Your task to perform on an android device: Open Android settings Image 0: 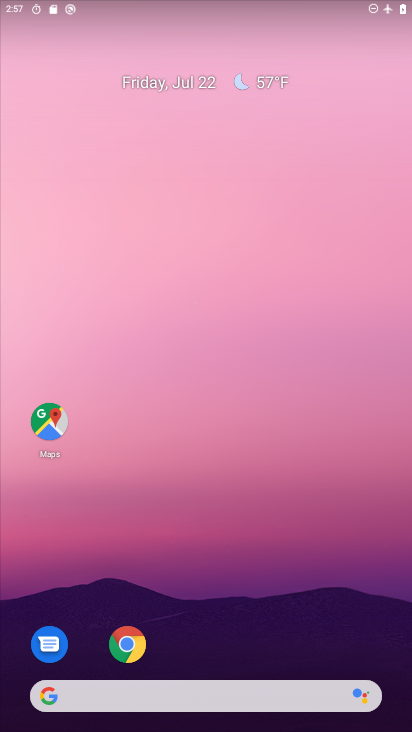
Step 0: drag from (235, 614) to (236, 404)
Your task to perform on an android device: Open Android settings Image 1: 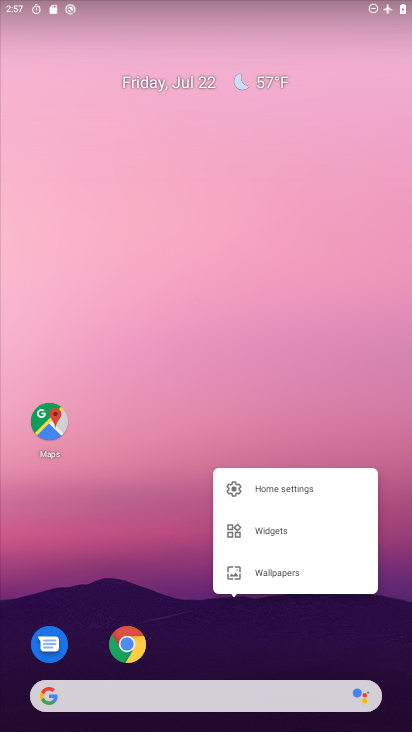
Step 1: click (221, 221)
Your task to perform on an android device: Open Android settings Image 2: 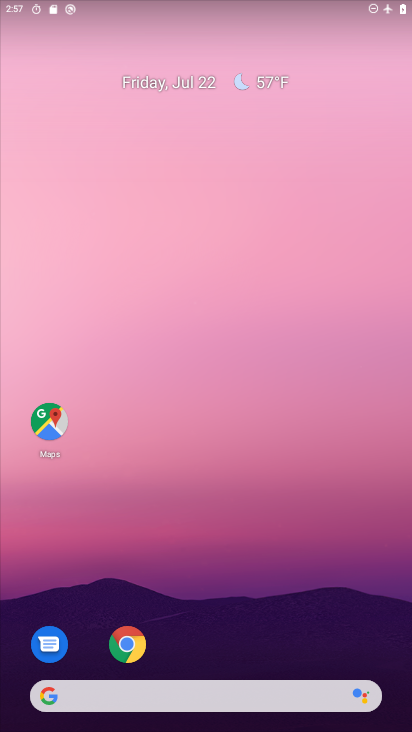
Step 2: click (218, 642)
Your task to perform on an android device: Open Android settings Image 3: 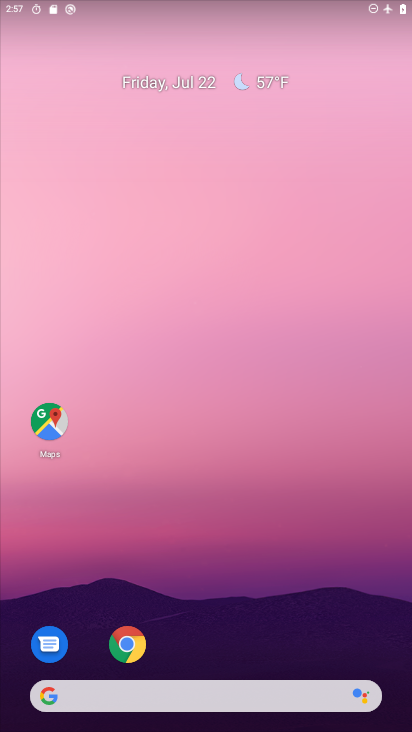
Step 3: click (160, 490)
Your task to perform on an android device: Open Android settings Image 4: 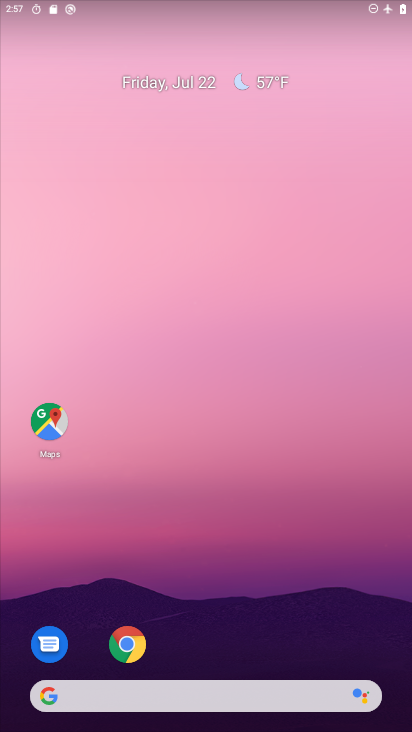
Step 4: click (205, 170)
Your task to perform on an android device: Open Android settings Image 5: 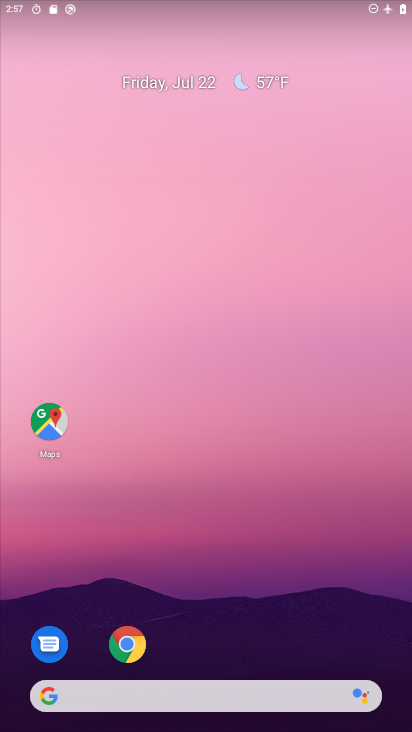
Step 5: click (185, 118)
Your task to perform on an android device: Open Android settings Image 6: 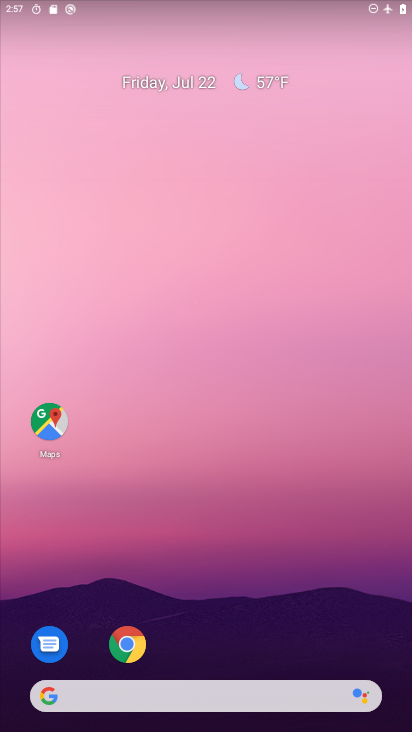
Step 6: drag from (226, 529) to (233, 231)
Your task to perform on an android device: Open Android settings Image 7: 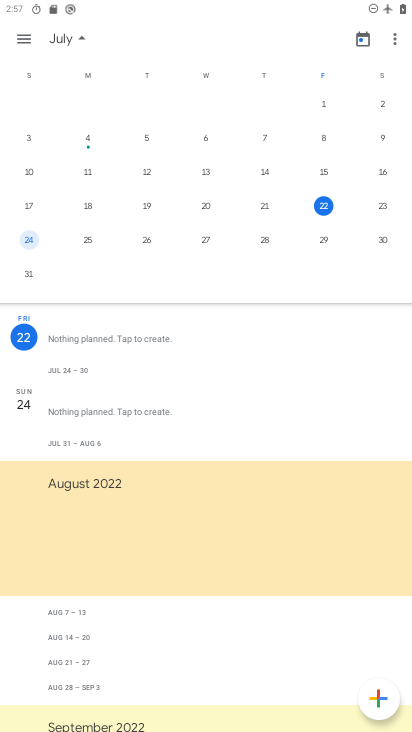
Step 7: press home button
Your task to perform on an android device: Open Android settings Image 8: 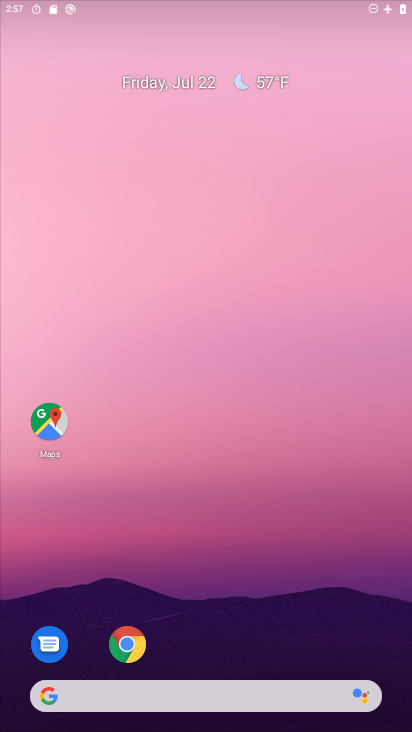
Step 8: drag from (210, 288) to (204, 82)
Your task to perform on an android device: Open Android settings Image 9: 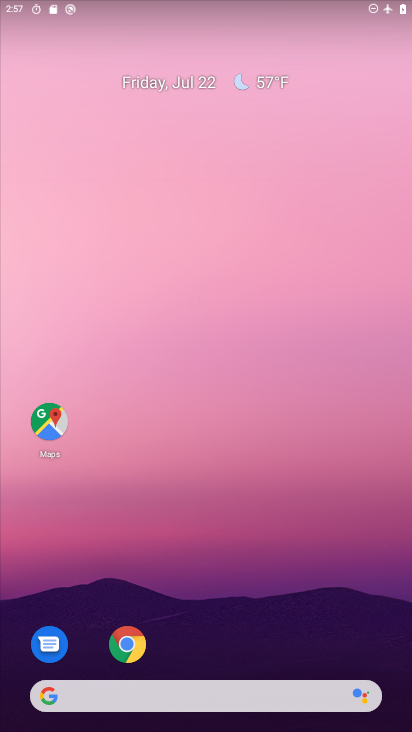
Step 9: drag from (211, 606) to (236, 150)
Your task to perform on an android device: Open Android settings Image 10: 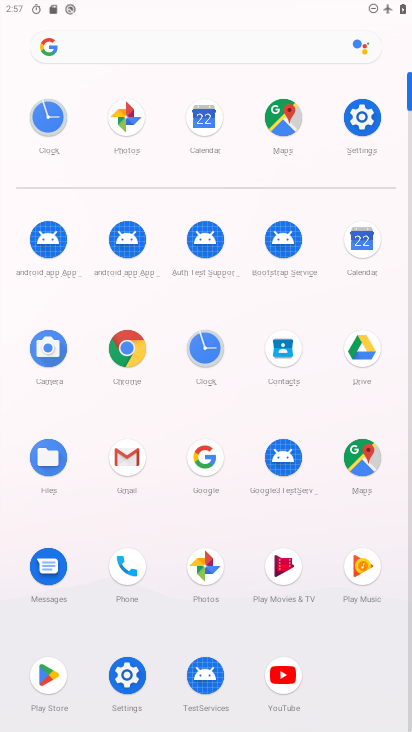
Step 10: click (349, 135)
Your task to perform on an android device: Open Android settings Image 11: 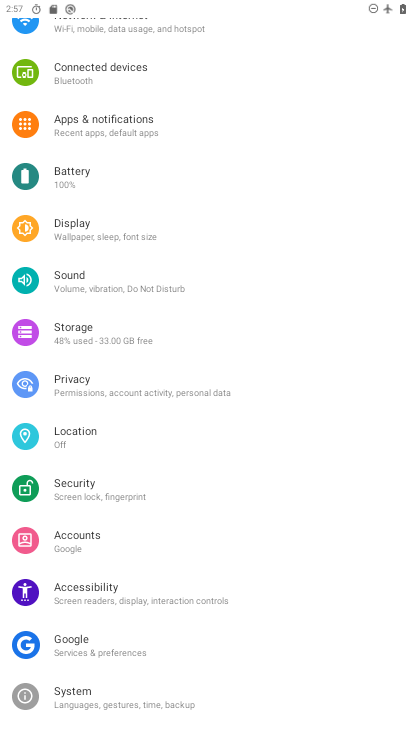
Step 11: task complete